Your task to perform on an android device: Go to settings Image 0: 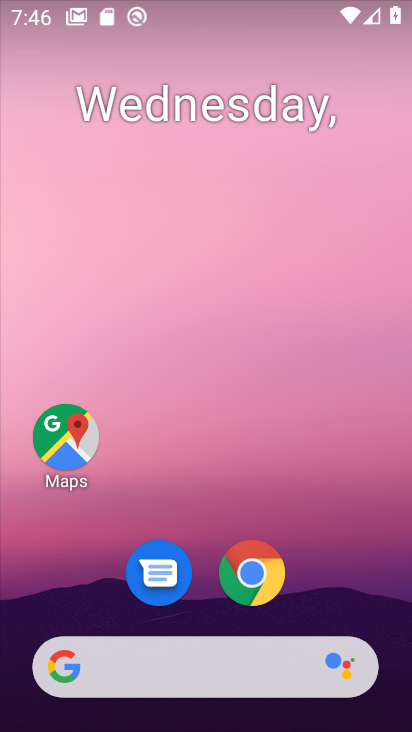
Step 0: drag from (331, 599) to (329, 17)
Your task to perform on an android device: Go to settings Image 1: 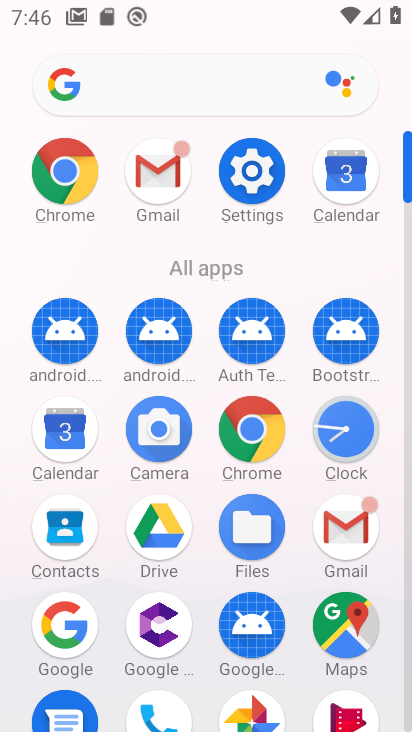
Step 1: click (253, 174)
Your task to perform on an android device: Go to settings Image 2: 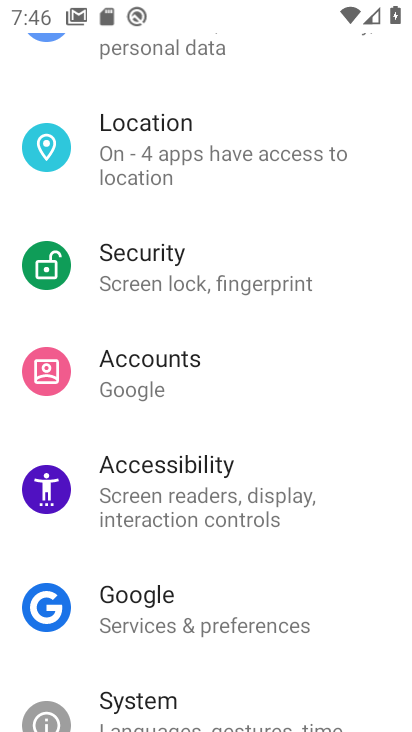
Step 2: task complete